Your task to perform on an android device: manage bookmarks in the chrome app Image 0: 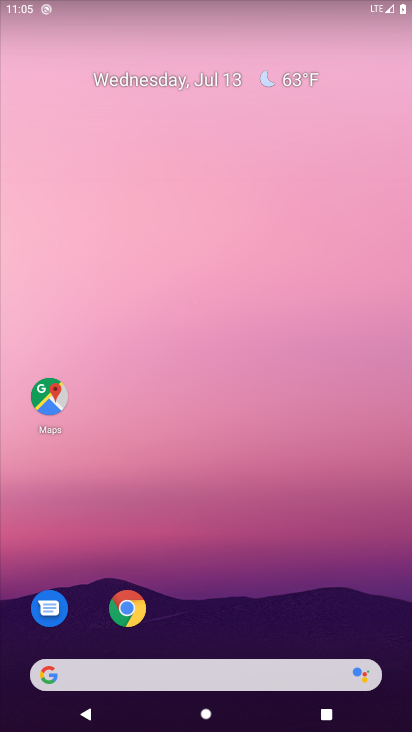
Step 0: drag from (259, 587) to (274, 163)
Your task to perform on an android device: manage bookmarks in the chrome app Image 1: 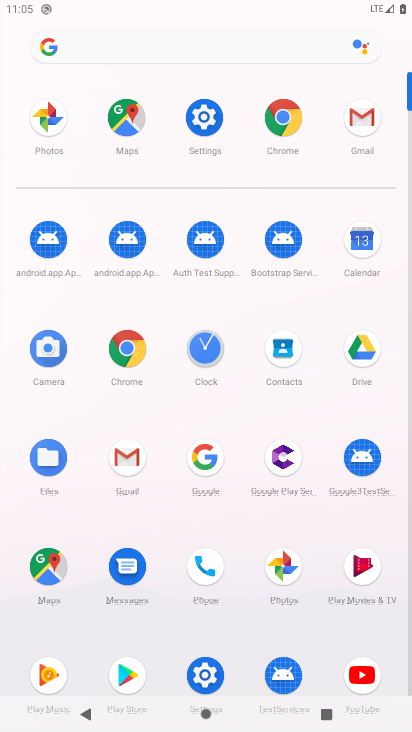
Step 1: click (122, 355)
Your task to perform on an android device: manage bookmarks in the chrome app Image 2: 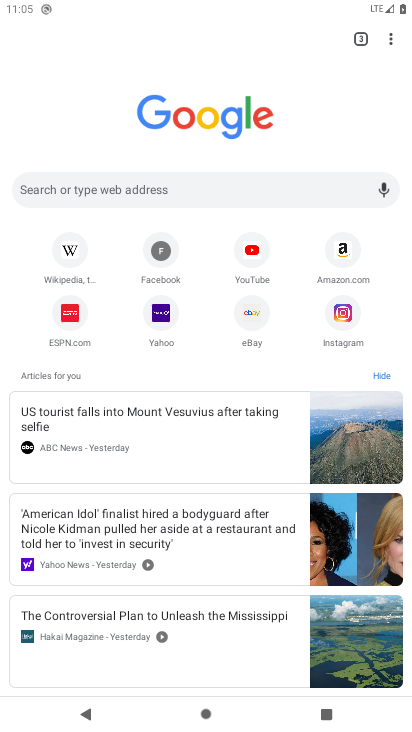
Step 2: task complete